Your task to perform on an android device: manage bookmarks in the chrome app Image 0: 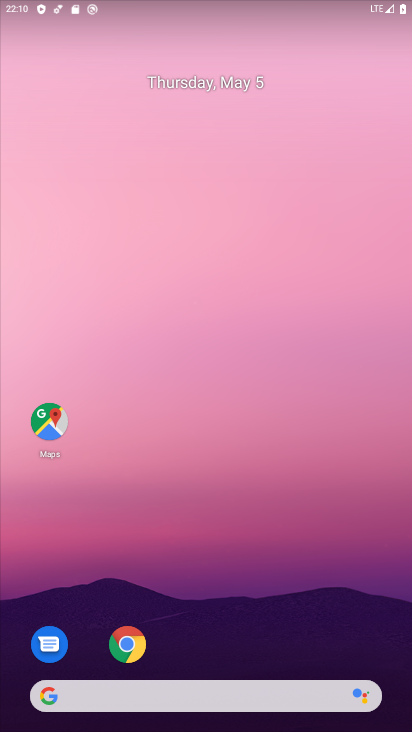
Step 0: click (129, 649)
Your task to perform on an android device: manage bookmarks in the chrome app Image 1: 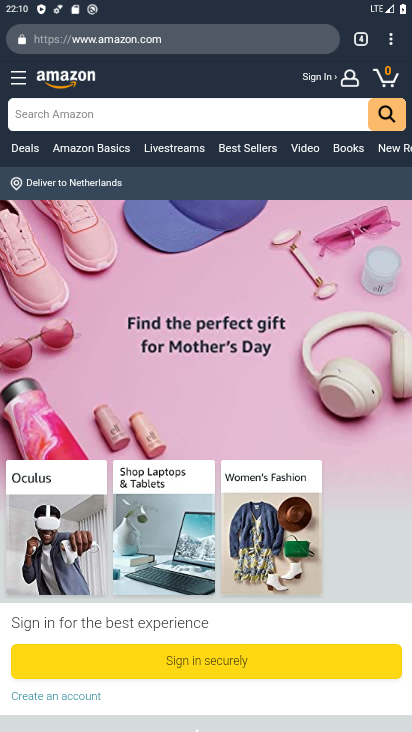
Step 1: click (386, 40)
Your task to perform on an android device: manage bookmarks in the chrome app Image 2: 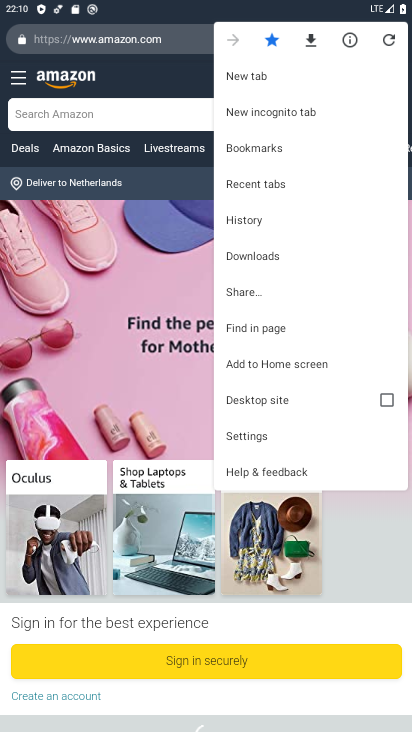
Step 2: click (267, 149)
Your task to perform on an android device: manage bookmarks in the chrome app Image 3: 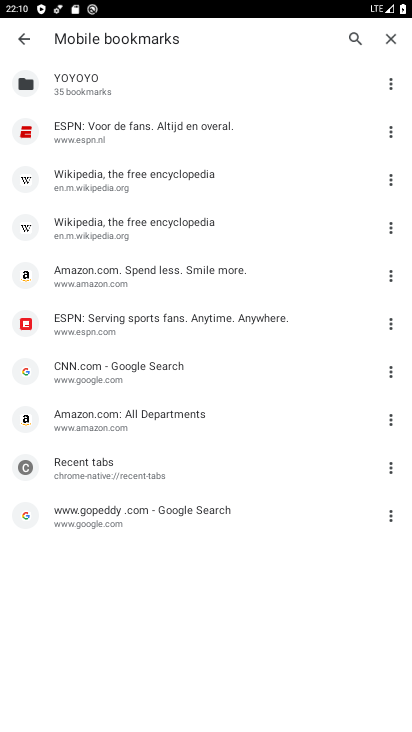
Step 3: click (393, 125)
Your task to perform on an android device: manage bookmarks in the chrome app Image 4: 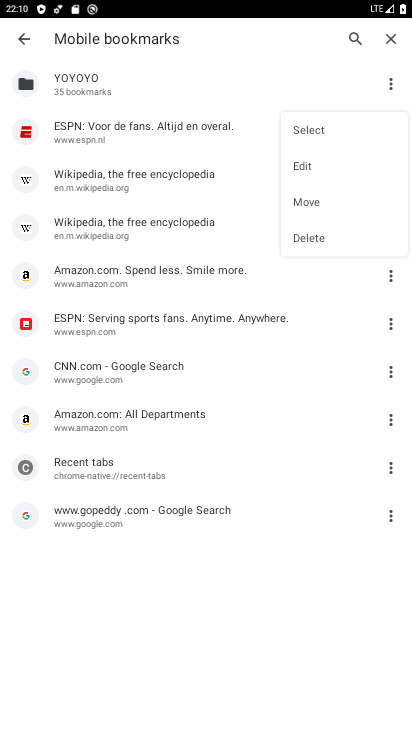
Step 4: click (317, 170)
Your task to perform on an android device: manage bookmarks in the chrome app Image 5: 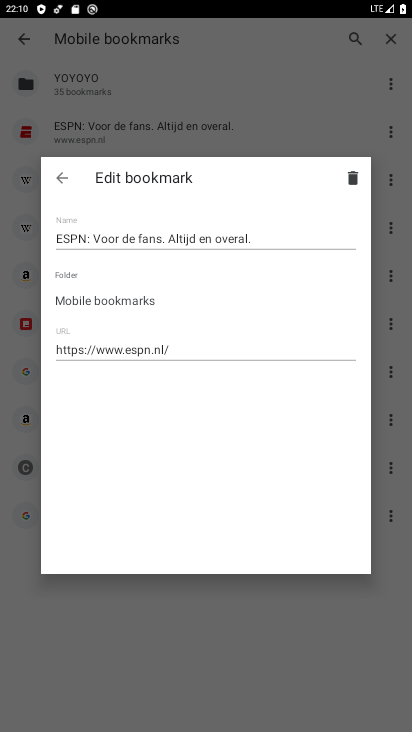
Step 5: task complete